Your task to perform on an android device: Open Youtube and go to the subscriptions tab Image 0: 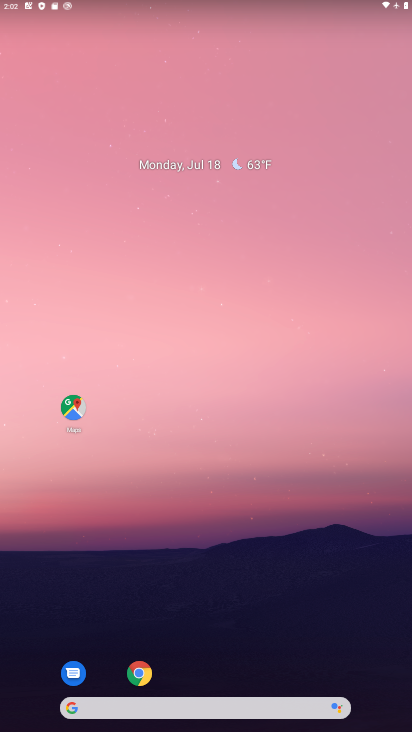
Step 0: drag from (296, 633) to (280, 226)
Your task to perform on an android device: Open Youtube and go to the subscriptions tab Image 1: 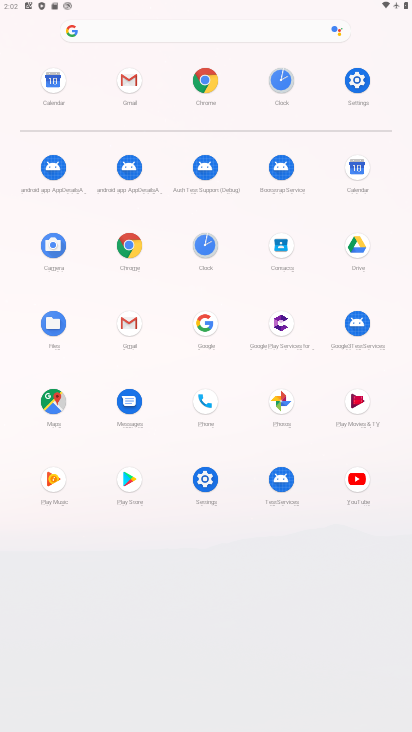
Step 1: click (358, 472)
Your task to perform on an android device: Open Youtube and go to the subscriptions tab Image 2: 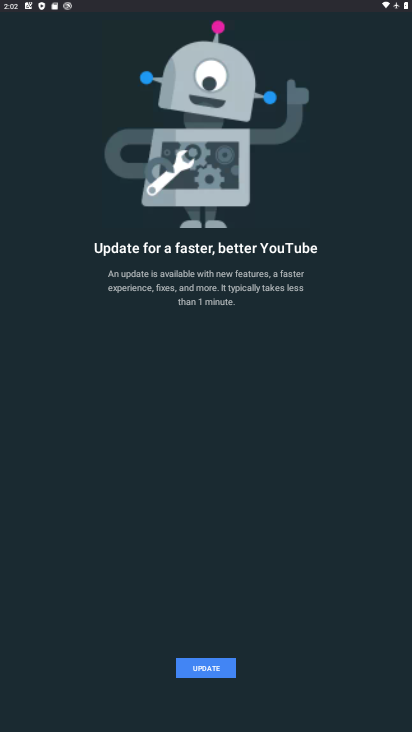
Step 2: task complete